Your task to perform on an android device: Go to Amazon Image 0: 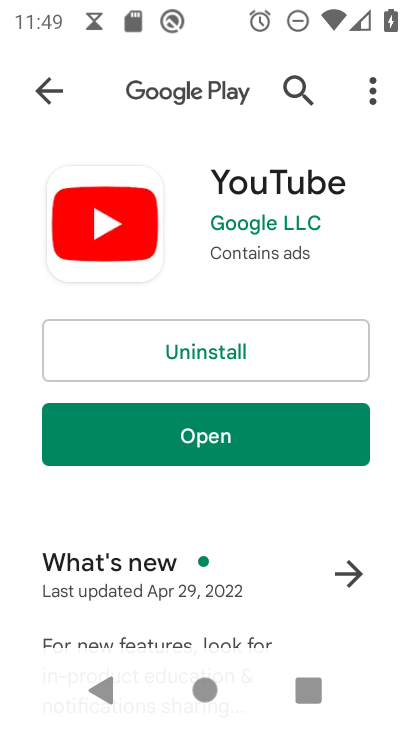
Step 0: press home button
Your task to perform on an android device: Go to Amazon Image 1: 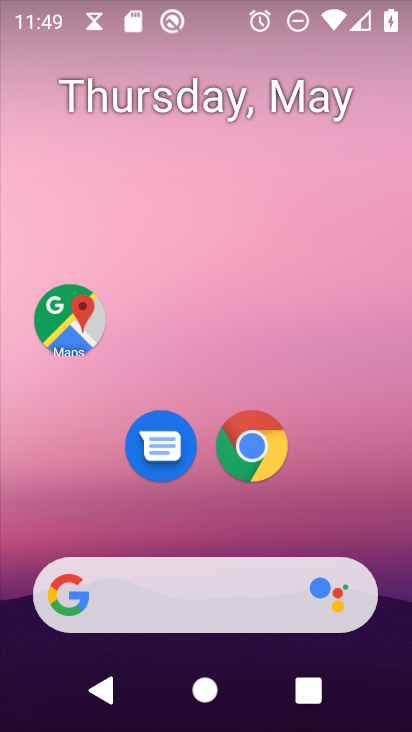
Step 1: drag from (266, 639) to (197, 307)
Your task to perform on an android device: Go to Amazon Image 2: 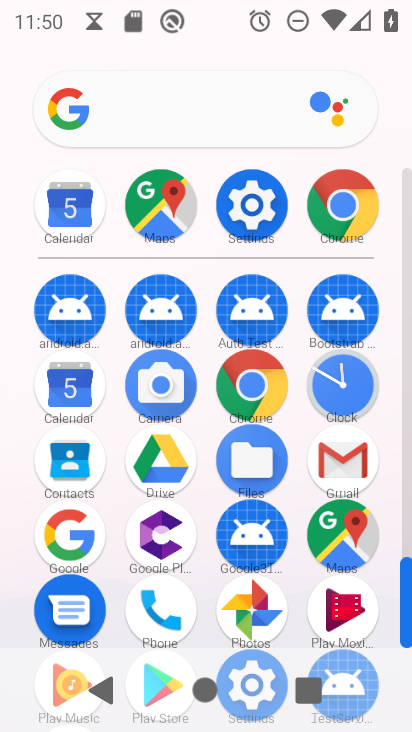
Step 2: click (338, 228)
Your task to perform on an android device: Go to Amazon Image 3: 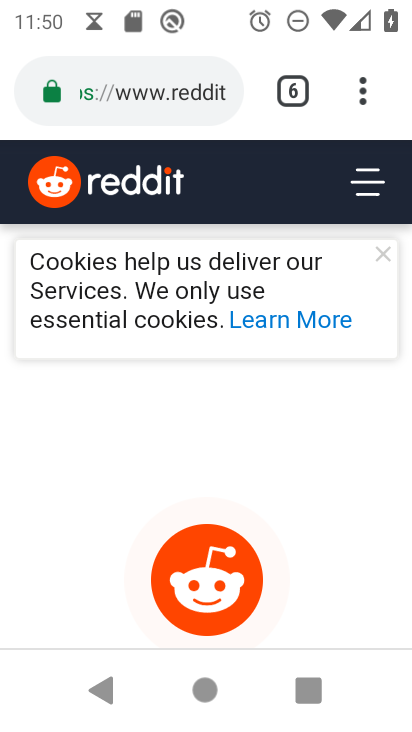
Step 3: click (357, 106)
Your task to perform on an android device: Go to Amazon Image 4: 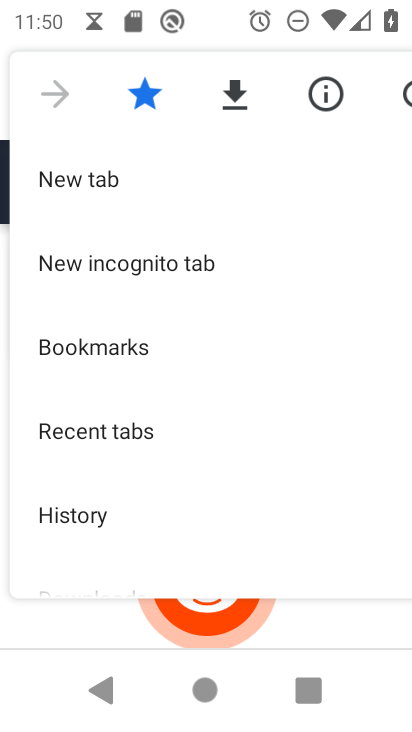
Step 4: click (101, 175)
Your task to perform on an android device: Go to Amazon Image 5: 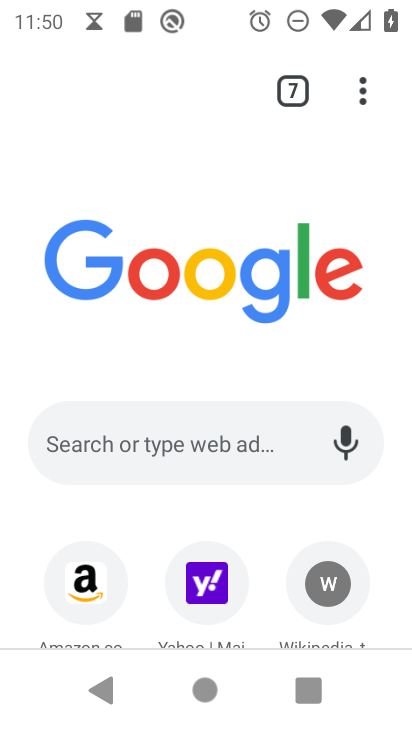
Step 5: click (80, 587)
Your task to perform on an android device: Go to Amazon Image 6: 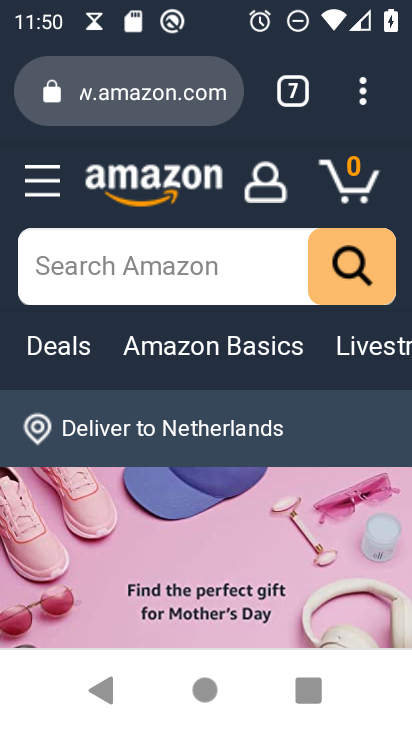
Step 6: task complete